Your task to perform on an android device: open device folders in google photos Image 0: 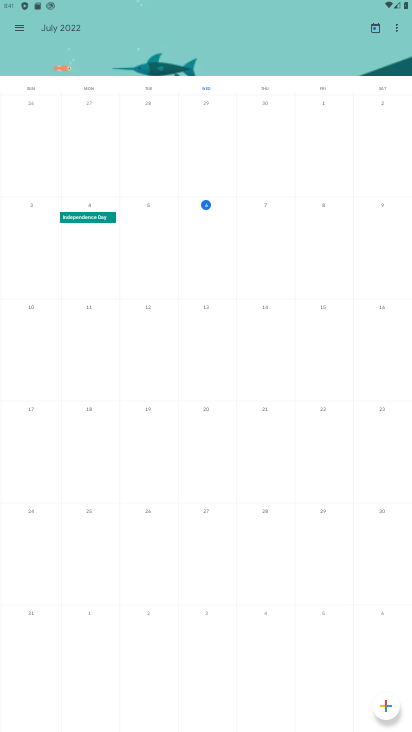
Step 0: press home button
Your task to perform on an android device: open device folders in google photos Image 1: 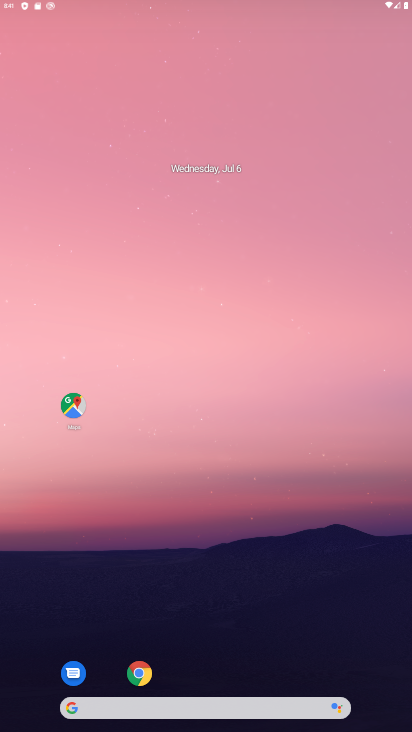
Step 1: drag from (235, 640) to (244, 249)
Your task to perform on an android device: open device folders in google photos Image 2: 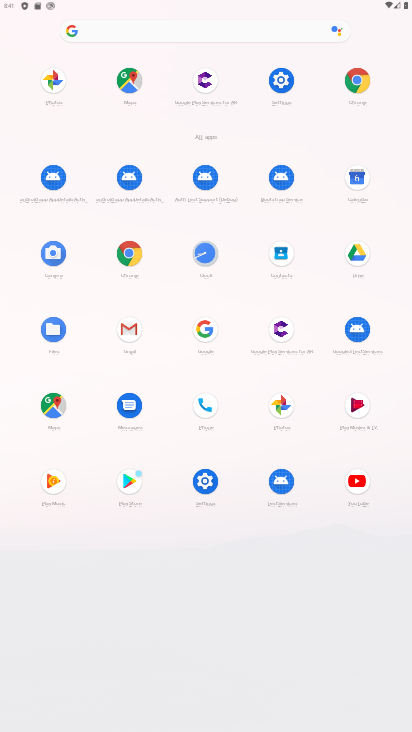
Step 2: click (279, 406)
Your task to perform on an android device: open device folders in google photos Image 3: 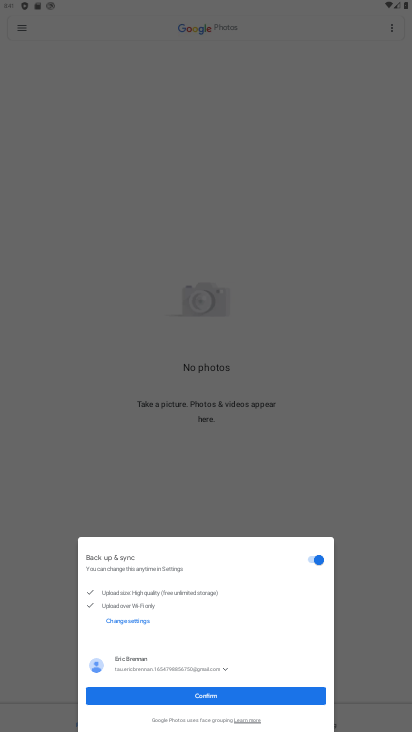
Step 3: click (263, 390)
Your task to perform on an android device: open device folders in google photos Image 4: 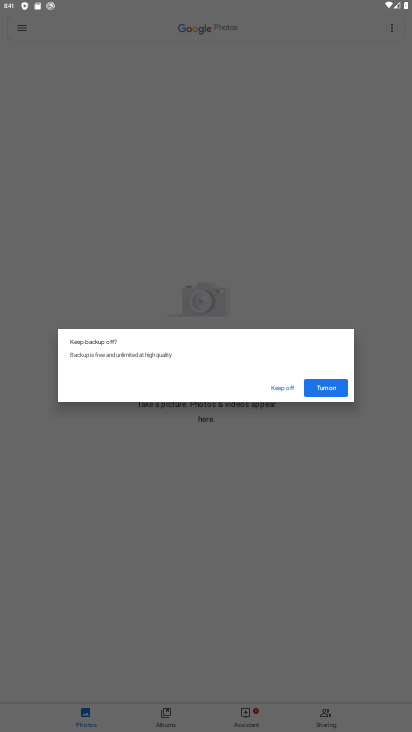
Step 4: click (332, 386)
Your task to perform on an android device: open device folders in google photos Image 5: 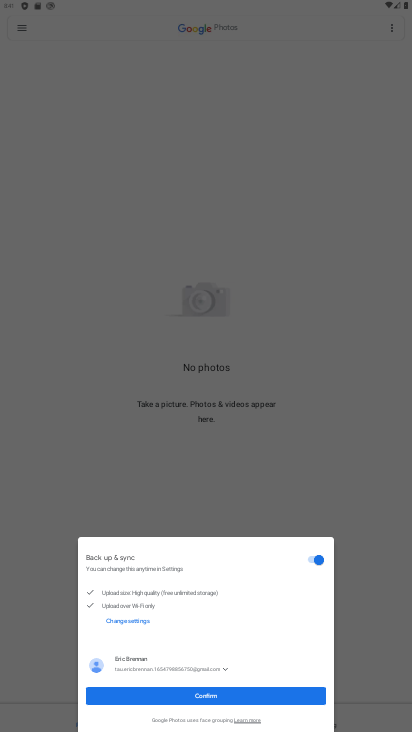
Step 5: click (280, 425)
Your task to perform on an android device: open device folders in google photos Image 6: 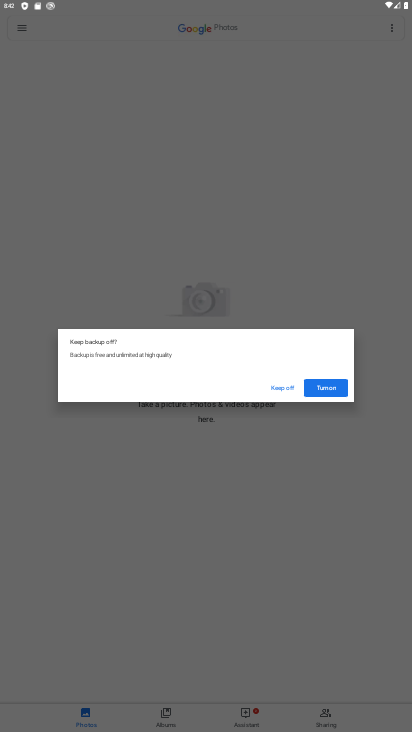
Step 6: click (268, 386)
Your task to perform on an android device: open device folders in google photos Image 7: 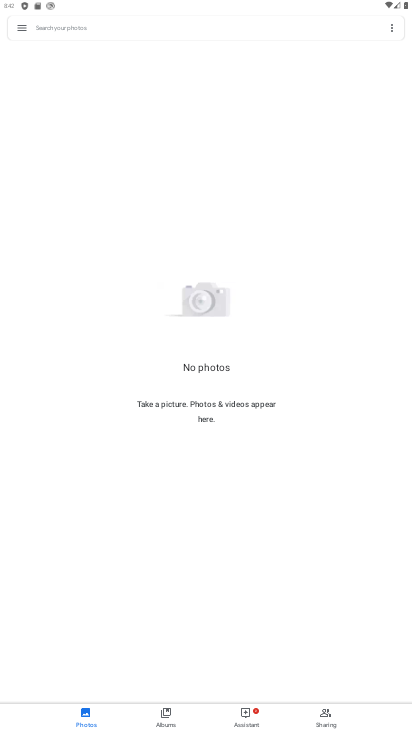
Step 7: click (159, 721)
Your task to perform on an android device: open device folders in google photos Image 8: 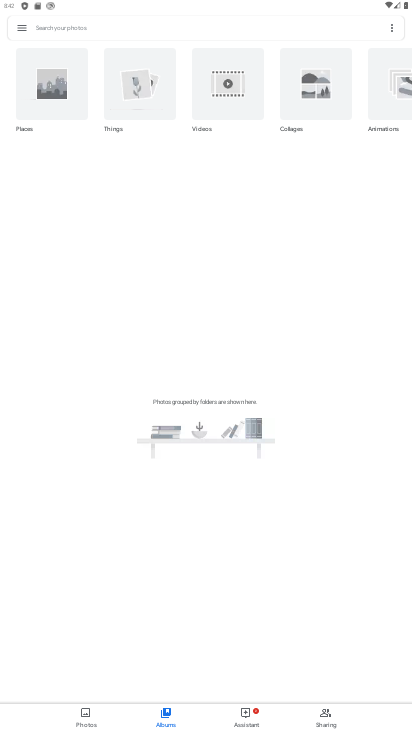
Step 8: task complete